Your task to perform on an android device: Search for sushi restaurants on Maps Image 0: 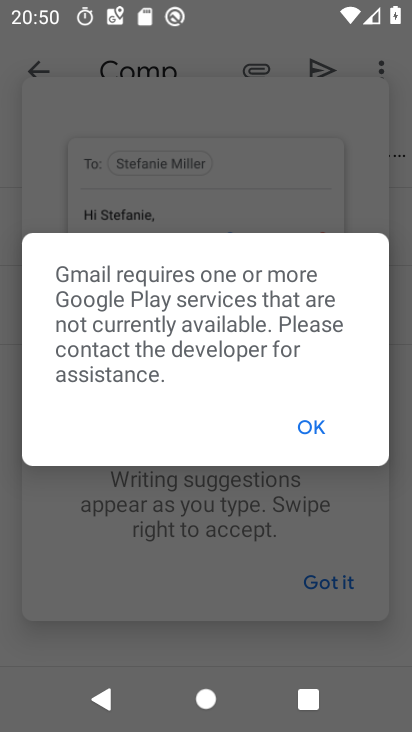
Step 0: press home button
Your task to perform on an android device: Search for sushi restaurants on Maps Image 1: 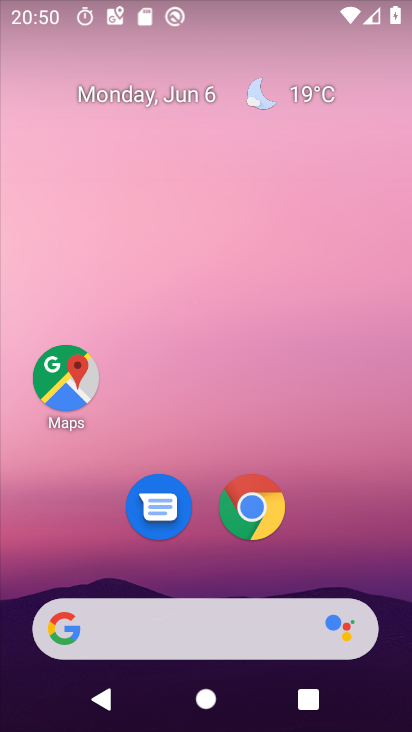
Step 1: drag from (391, 584) to (378, 677)
Your task to perform on an android device: Search for sushi restaurants on Maps Image 2: 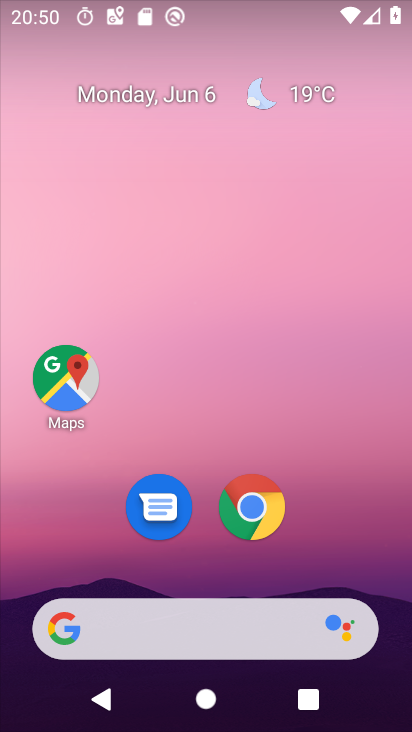
Step 2: click (69, 405)
Your task to perform on an android device: Search for sushi restaurants on Maps Image 3: 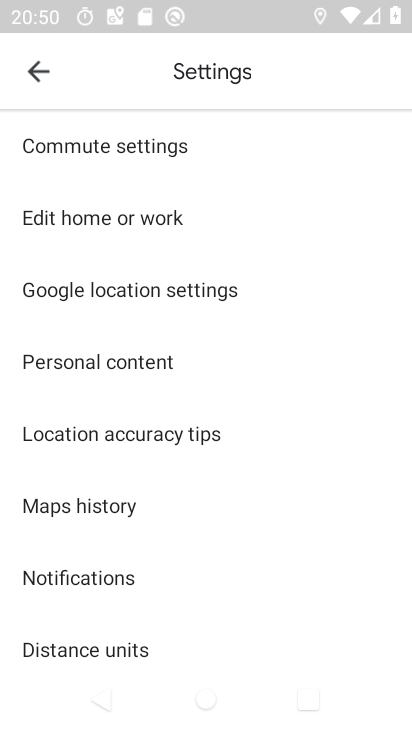
Step 3: click (43, 74)
Your task to perform on an android device: Search for sushi restaurants on Maps Image 4: 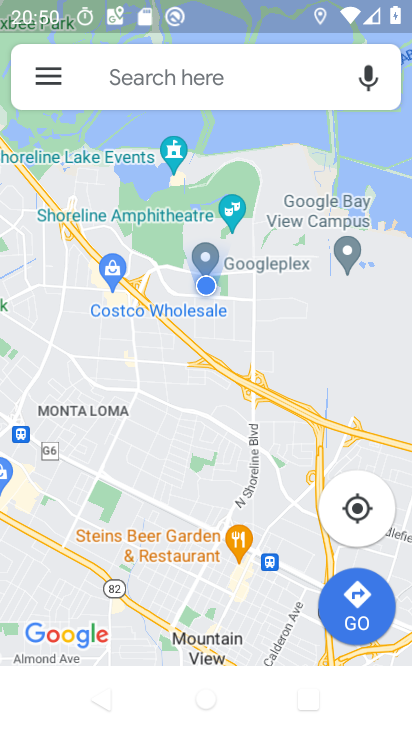
Step 4: click (181, 92)
Your task to perform on an android device: Search for sushi restaurants on Maps Image 5: 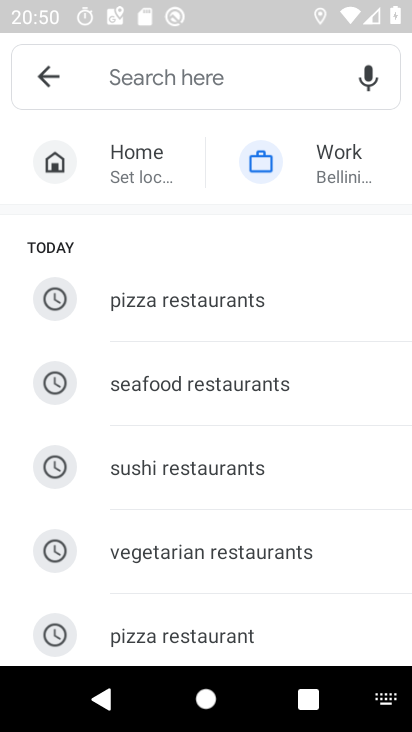
Step 5: type " sushi restaurants"
Your task to perform on an android device: Search for sushi restaurants on Maps Image 6: 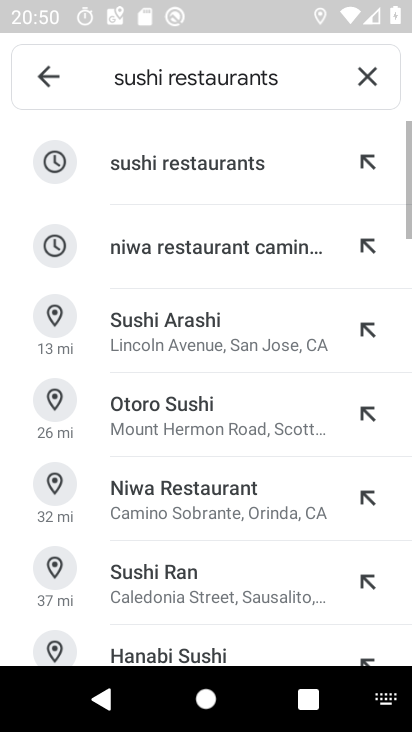
Step 6: click (339, 126)
Your task to perform on an android device: Search for sushi restaurants on Maps Image 7: 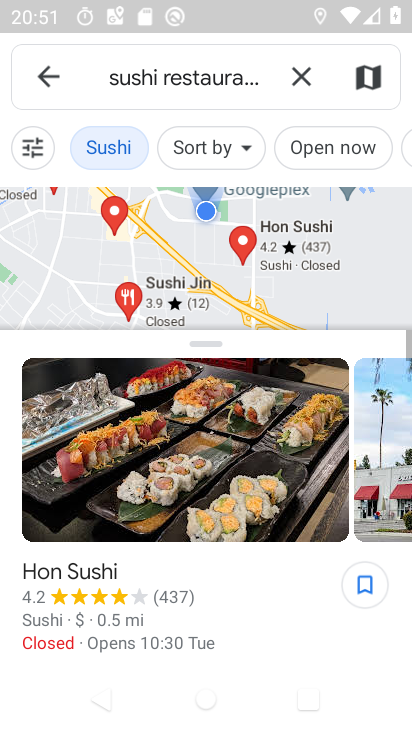
Step 7: task complete